Your task to perform on an android device: Go to calendar. Show me events next week Image 0: 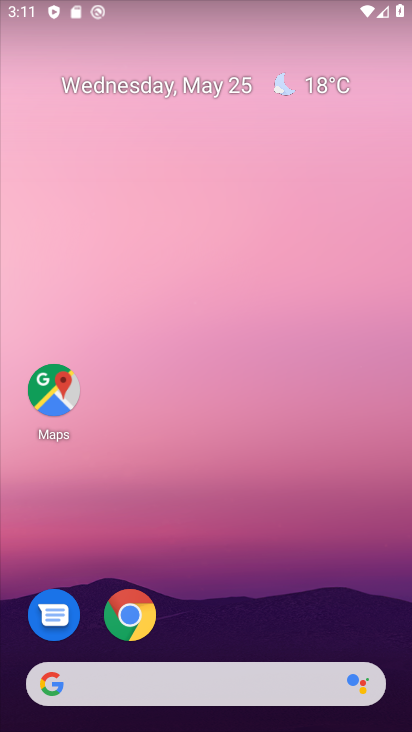
Step 0: drag from (244, 596) to (159, 1)
Your task to perform on an android device: Go to calendar. Show me events next week Image 1: 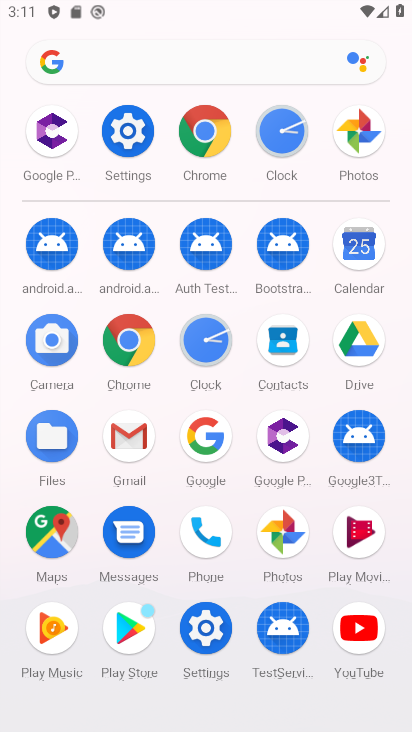
Step 1: click (357, 238)
Your task to perform on an android device: Go to calendar. Show me events next week Image 2: 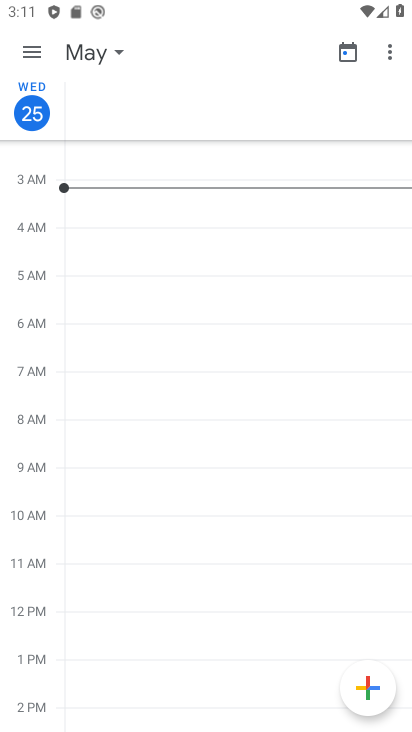
Step 2: click (32, 48)
Your task to perform on an android device: Go to calendar. Show me events next week Image 3: 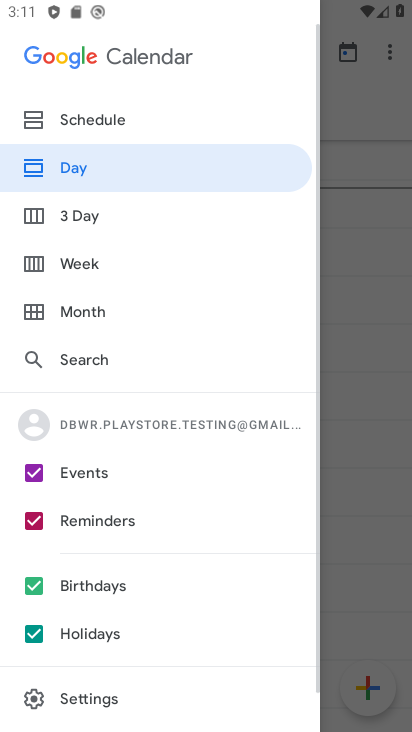
Step 3: click (83, 262)
Your task to perform on an android device: Go to calendar. Show me events next week Image 4: 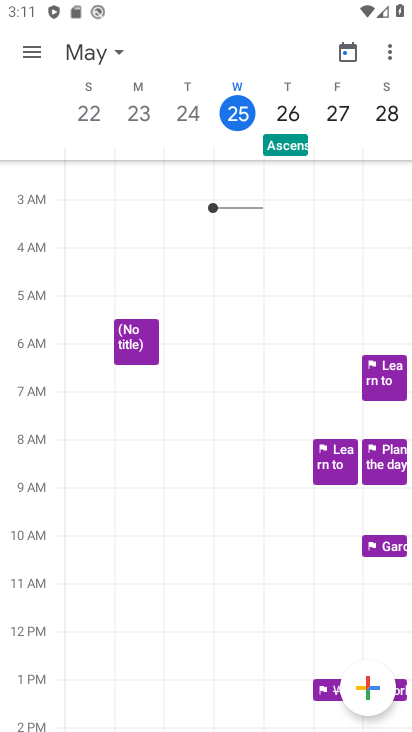
Step 4: click (101, 44)
Your task to perform on an android device: Go to calendar. Show me events next week Image 5: 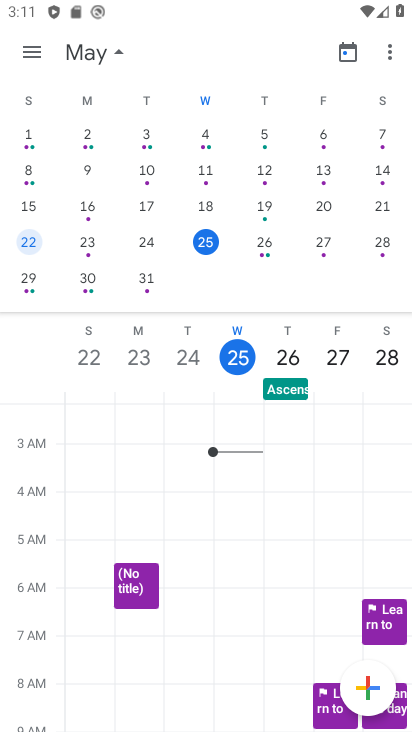
Step 5: click (96, 281)
Your task to perform on an android device: Go to calendar. Show me events next week Image 6: 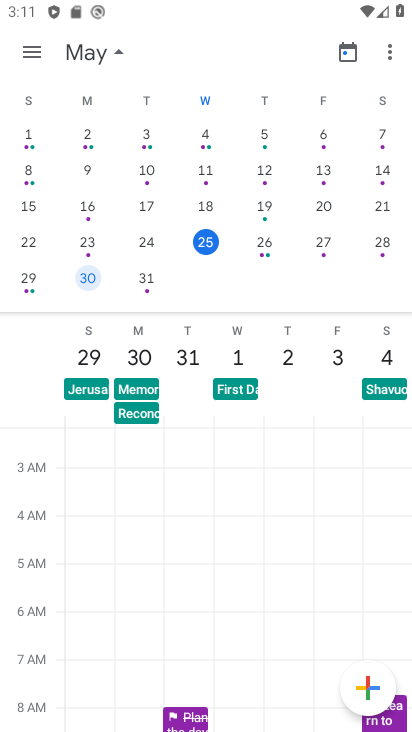
Step 6: task complete